Your task to perform on an android device: turn off improve location accuracy Image 0: 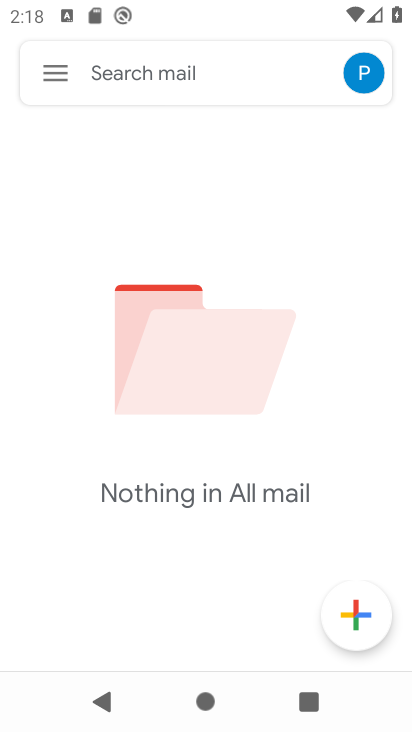
Step 0: press home button
Your task to perform on an android device: turn off improve location accuracy Image 1: 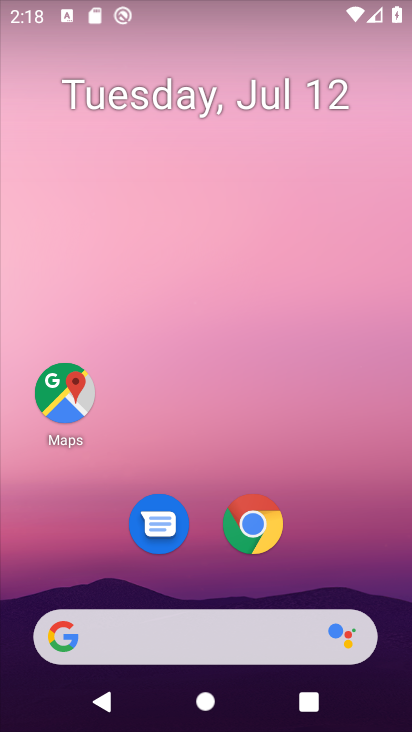
Step 1: drag from (293, 540) to (320, 46)
Your task to perform on an android device: turn off improve location accuracy Image 2: 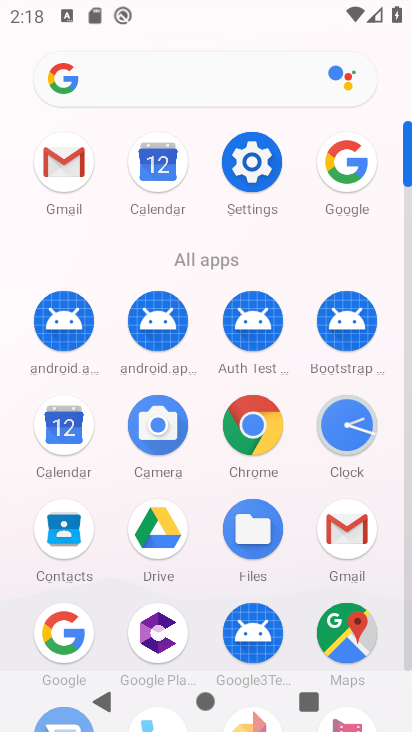
Step 2: click (263, 160)
Your task to perform on an android device: turn off improve location accuracy Image 3: 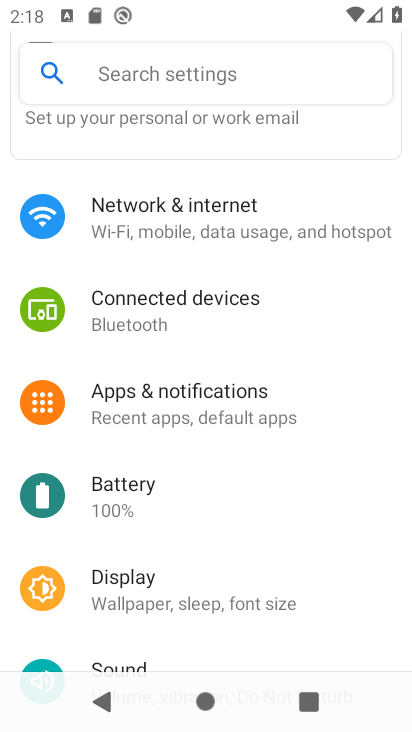
Step 3: drag from (216, 482) to (218, 105)
Your task to perform on an android device: turn off improve location accuracy Image 4: 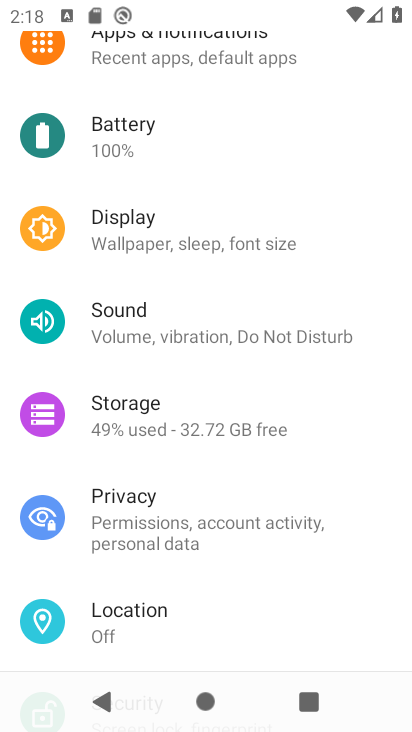
Step 4: drag from (202, 493) to (182, 316)
Your task to perform on an android device: turn off improve location accuracy Image 5: 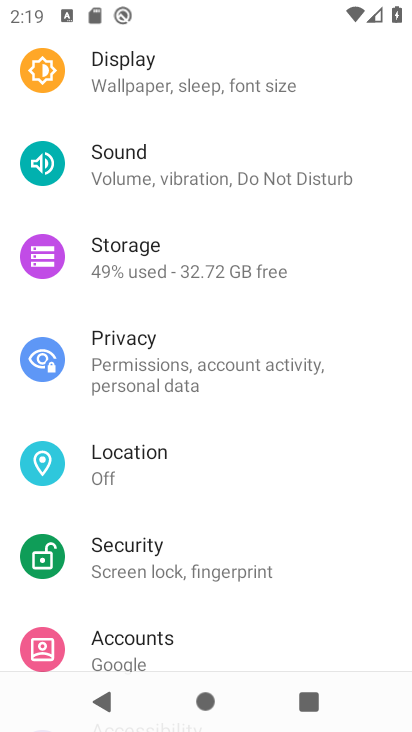
Step 5: click (146, 465)
Your task to perform on an android device: turn off improve location accuracy Image 6: 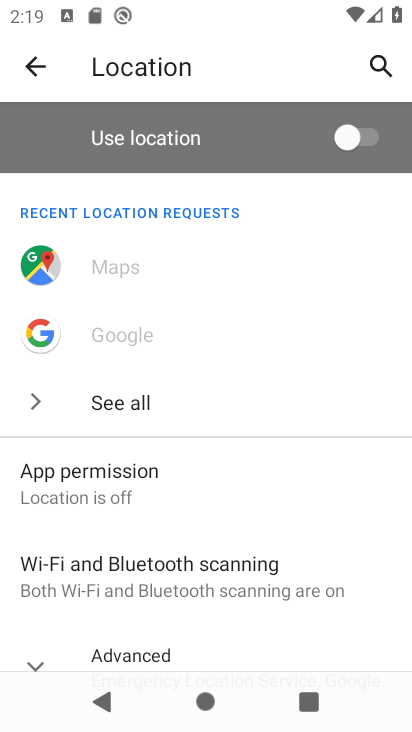
Step 6: click (35, 662)
Your task to perform on an android device: turn off improve location accuracy Image 7: 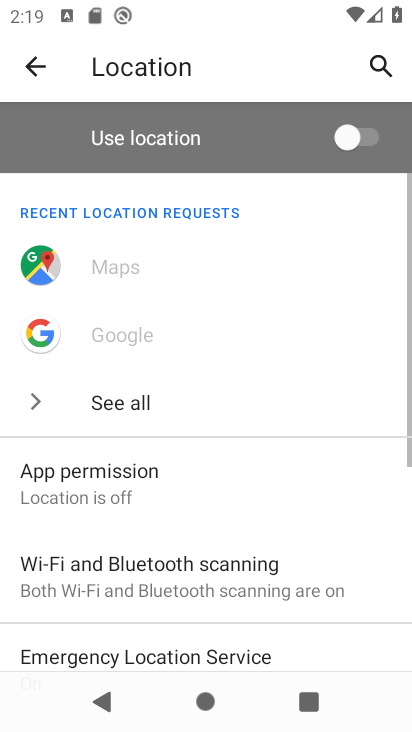
Step 7: drag from (156, 529) to (208, 128)
Your task to perform on an android device: turn off improve location accuracy Image 8: 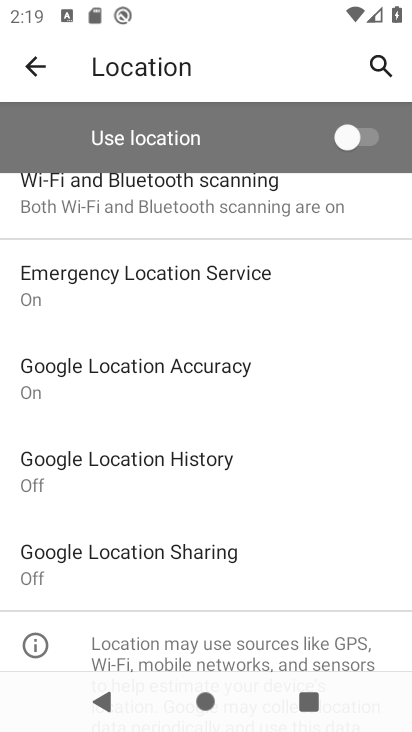
Step 8: click (208, 374)
Your task to perform on an android device: turn off improve location accuracy Image 9: 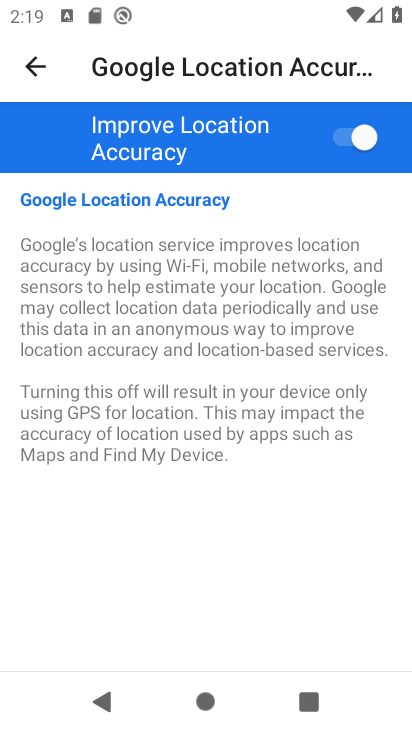
Step 9: click (358, 132)
Your task to perform on an android device: turn off improve location accuracy Image 10: 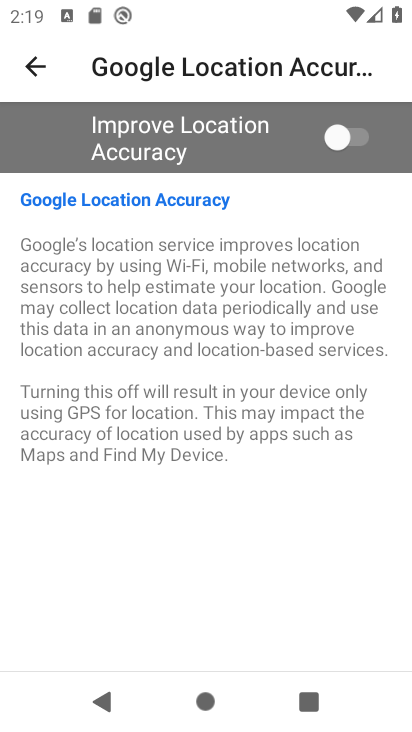
Step 10: task complete